Your task to perform on an android device: change the clock display to digital Image 0: 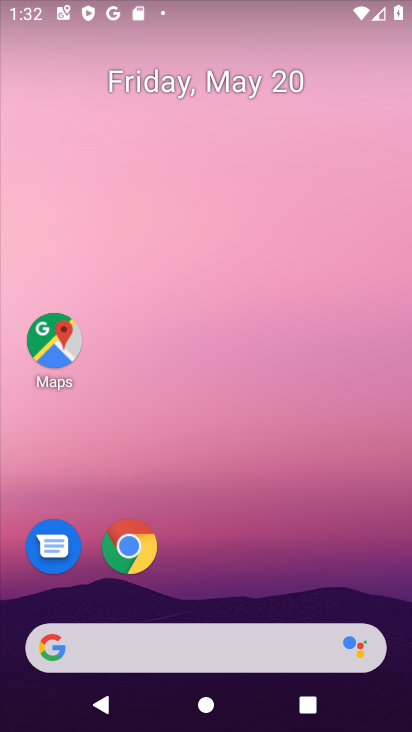
Step 0: drag from (211, 572) to (226, 81)
Your task to perform on an android device: change the clock display to digital Image 1: 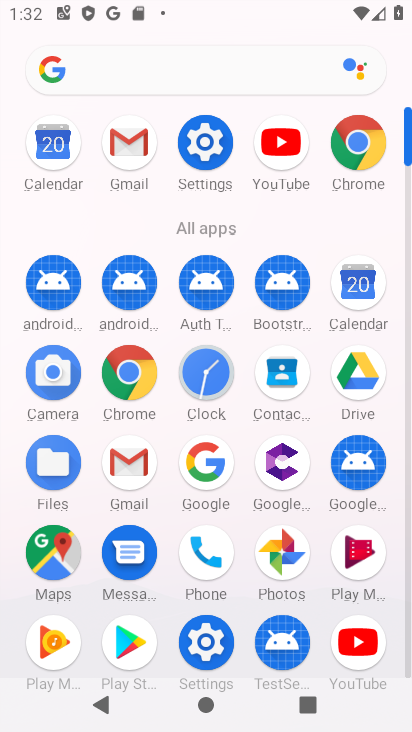
Step 1: click (221, 378)
Your task to perform on an android device: change the clock display to digital Image 2: 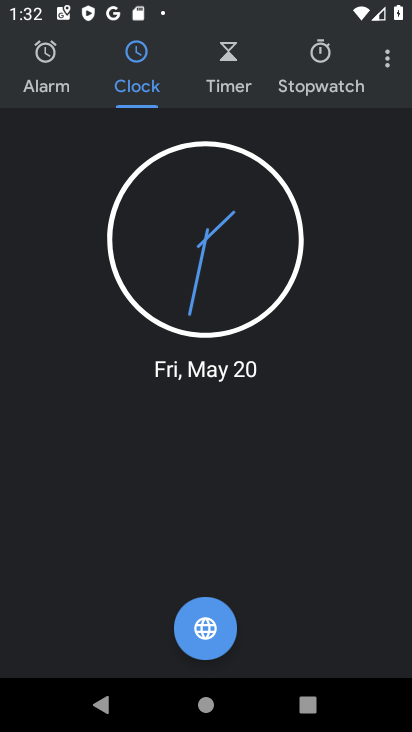
Step 2: click (379, 57)
Your task to perform on an android device: change the clock display to digital Image 3: 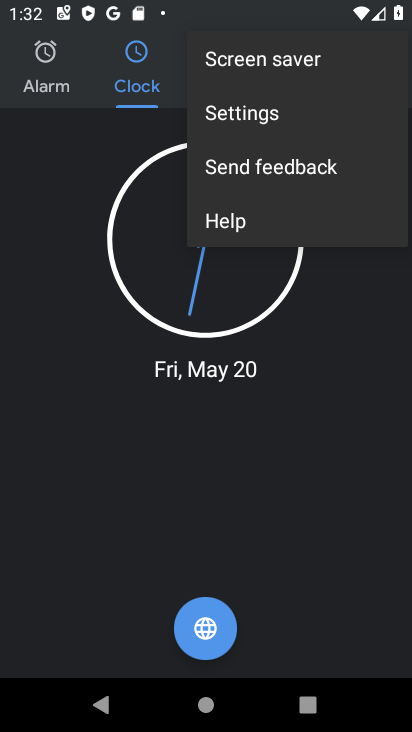
Step 3: click (278, 118)
Your task to perform on an android device: change the clock display to digital Image 4: 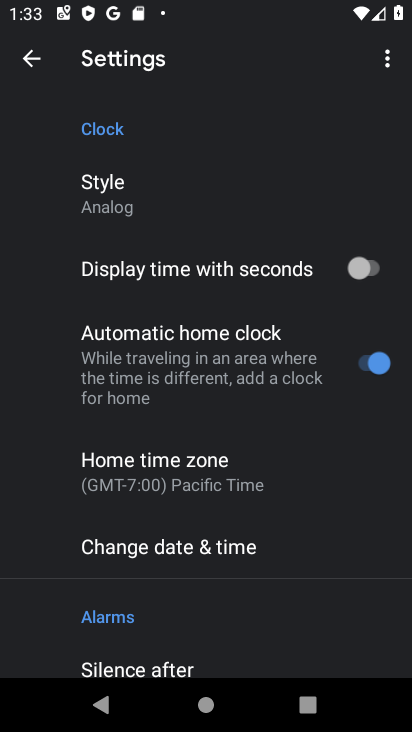
Step 4: drag from (252, 620) to (266, 369)
Your task to perform on an android device: change the clock display to digital Image 5: 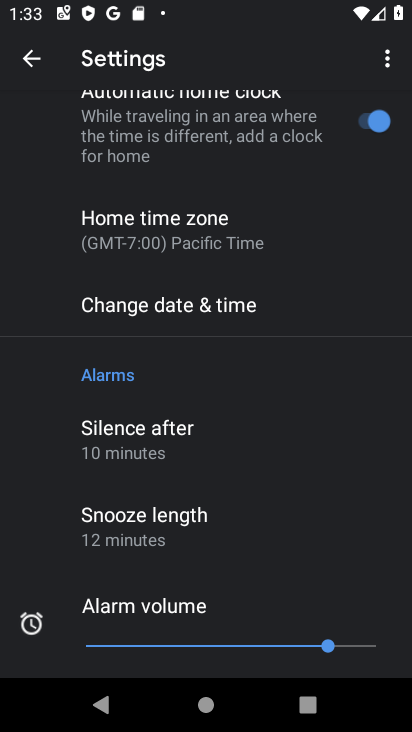
Step 5: drag from (281, 244) to (245, 722)
Your task to perform on an android device: change the clock display to digital Image 6: 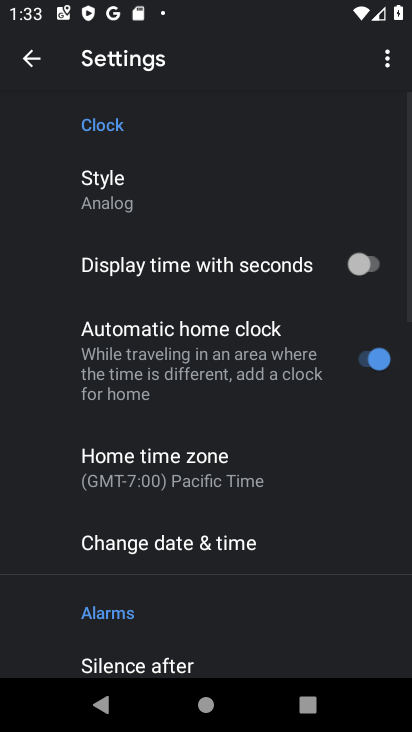
Step 6: click (168, 190)
Your task to perform on an android device: change the clock display to digital Image 7: 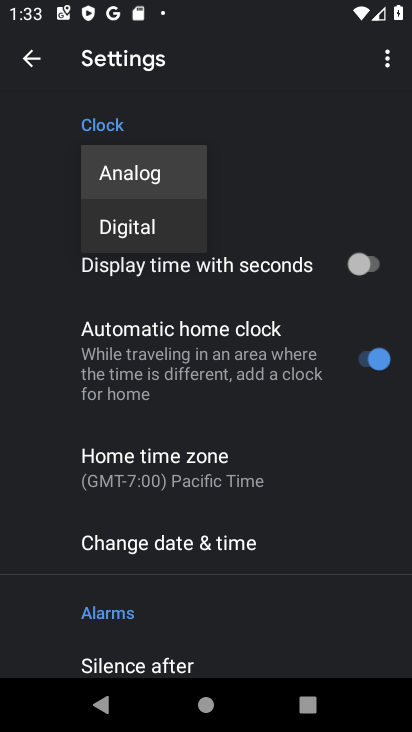
Step 7: click (169, 218)
Your task to perform on an android device: change the clock display to digital Image 8: 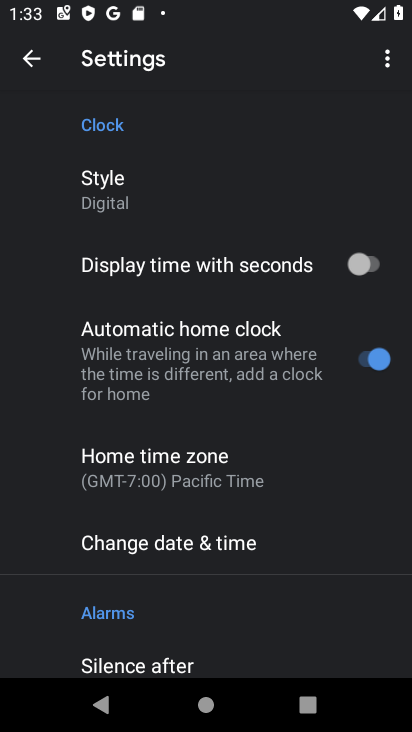
Step 8: task complete